Your task to perform on an android device: Open CNN.com Image 0: 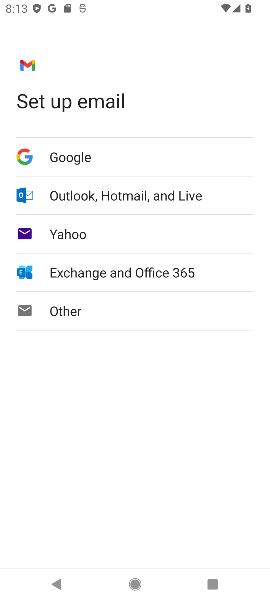
Step 0: press home button
Your task to perform on an android device: Open CNN.com Image 1: 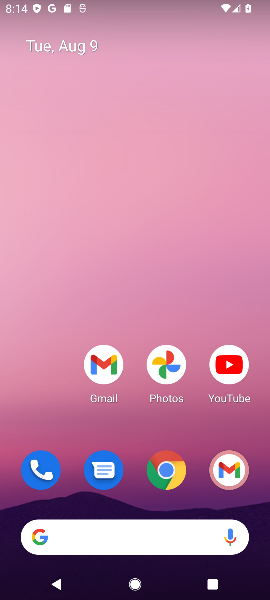
Step 1: click (165, 541)
Your task to perform on an android device: Open CNN.com Image 2: 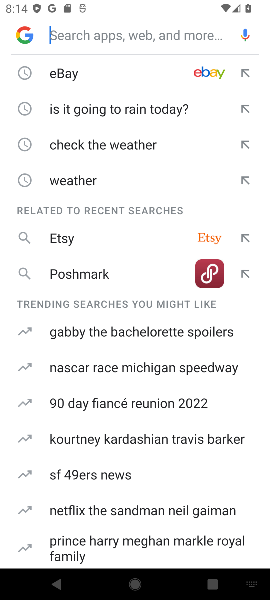
Step 2: type "cnn.com"
Your task to perform on an android device: Open CNN.com Image 3: 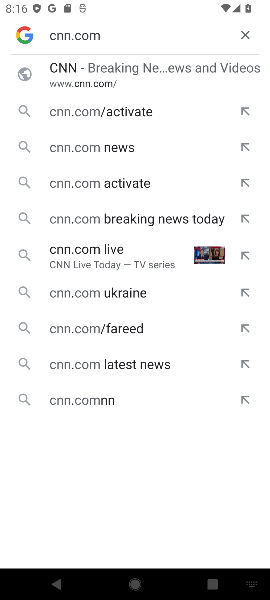
Step 3: click (120, 73)
Your task to perform on an android device: Open CNN.com Image 4: 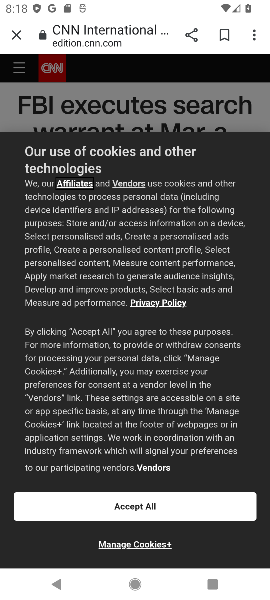
Step 4: task complete